Your task to perform on an android device: Is it going to rain tomorrow? Image 0: 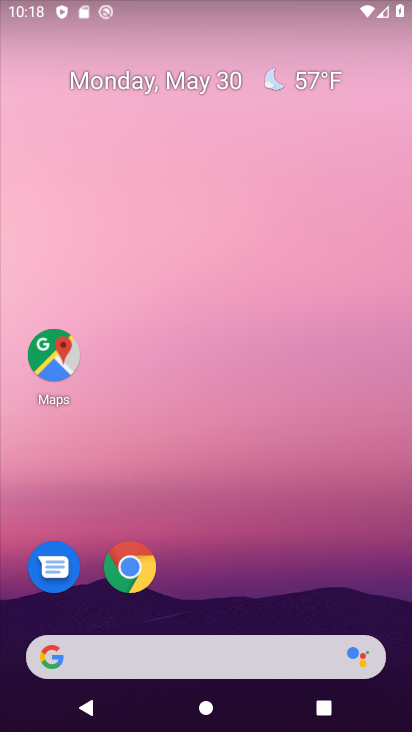
Step 0: drag from (195, 503) to (185, 154)
Your task to perform on an android device: Is it going to rain tomorrow? Image 1: 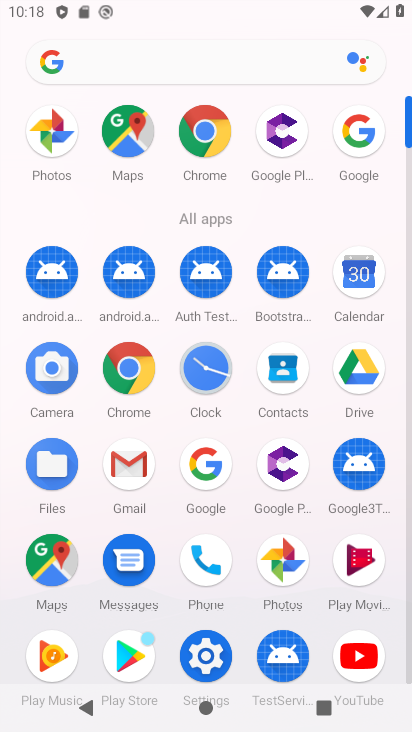
Step 1: click (212, 478)
Your task to perform on an android device: Is it going to rain tomorrow? Image 2: 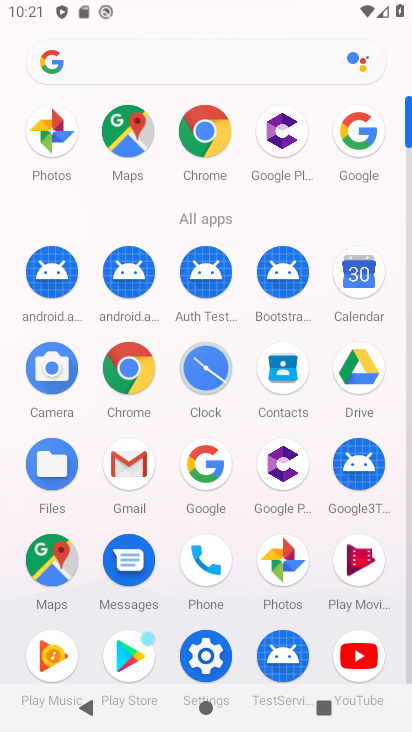
Step 2: click (216, 464)
Your task to perform on an android device: Is it going to rain tomorrow? Image 3: 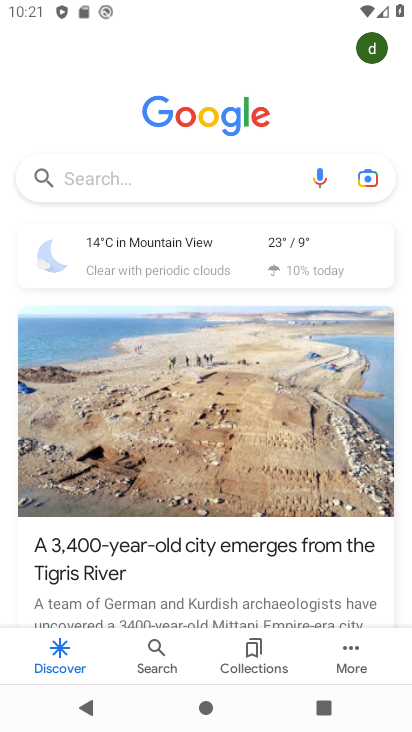
Step 3: click (162, 246)
Your task to perform on an android device: Is it going to rain tomorrow? Image 4: 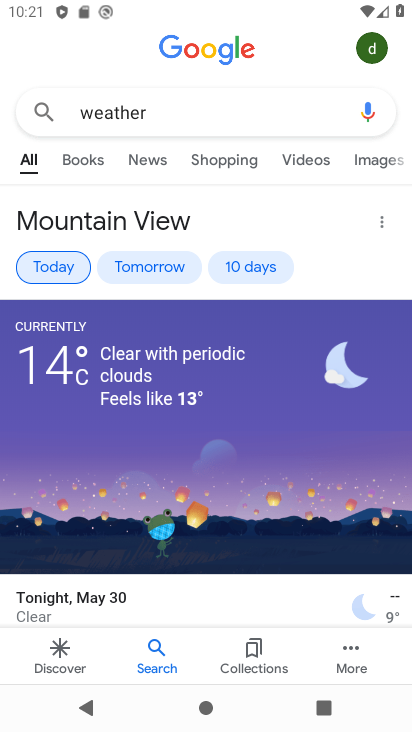
Step 4: click (144, 262)
Your task to perform on an android device: Is it going to rain tomorrow? Image 5: 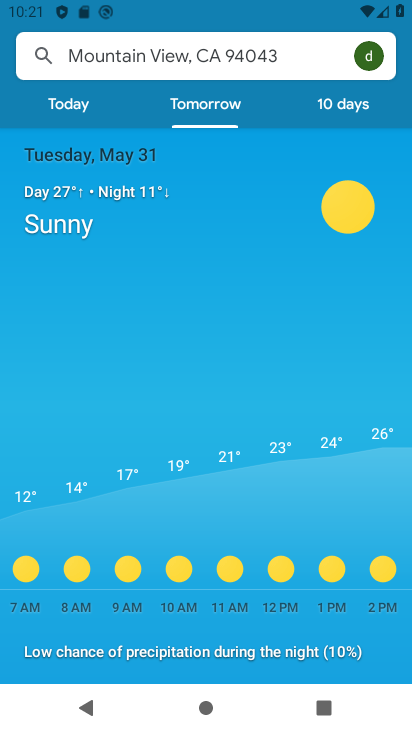
Step 5: task complete